Your task to perform on an android device: change the clock style Image 0: 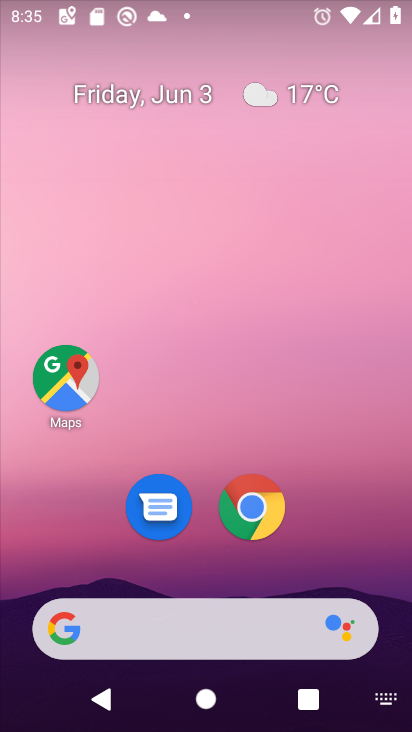
Step 0: press home button
Your task to perform on an android device: change the clock style Image 1: 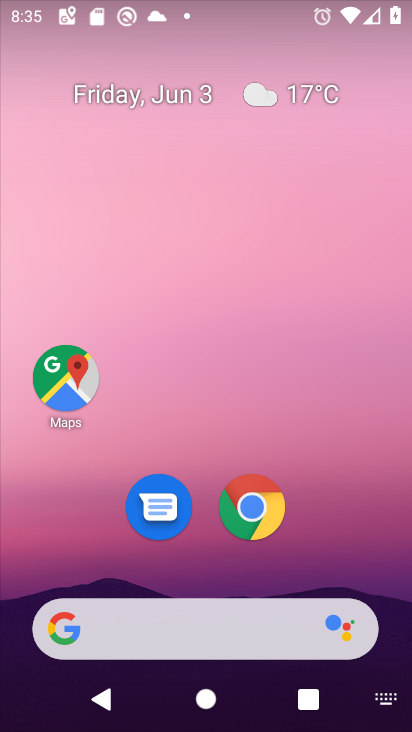
Step 1: drag from (321, 471) to (112, 9)
Your task to perform on an android device: change the clock style Image 2: 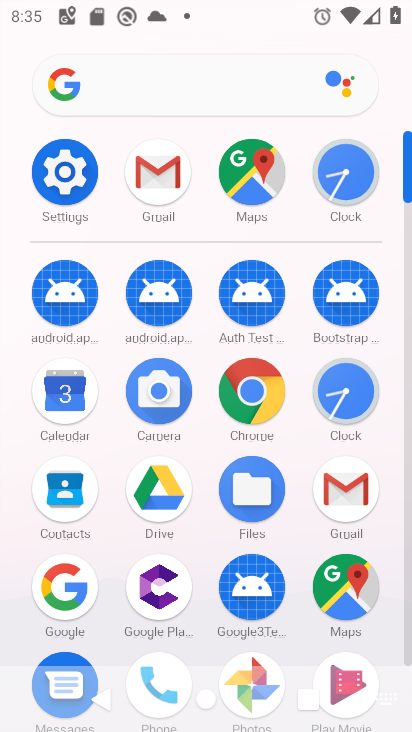
Step 2: click (349, 388)
Your task to perform on an android device: change the clock style Image 3: 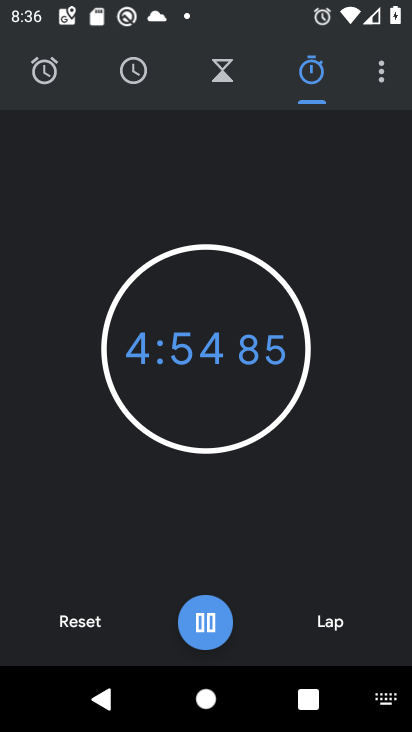
Step 3: click (379, 78)
Your task to perform on an android device: change the clock style Image 4: 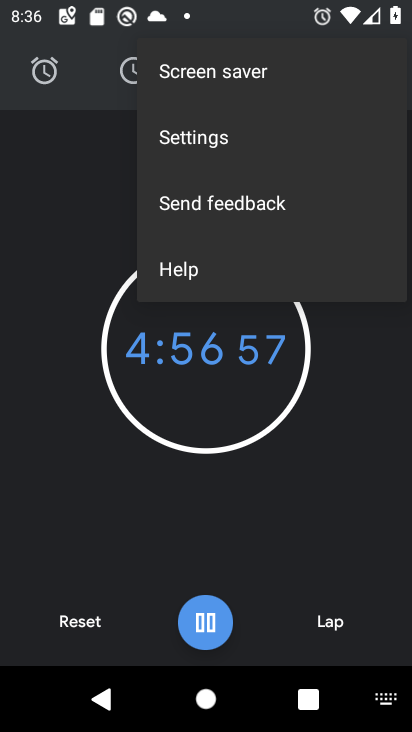
Step 4: click (200, 123)
Your task to perform on an android device: change the clock style Image 5: 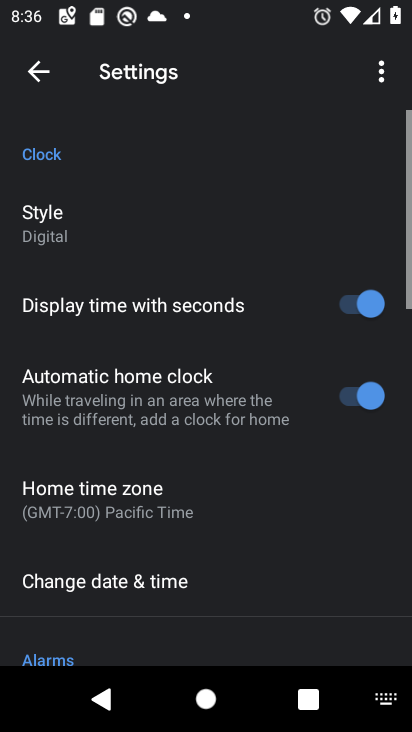
Step 5: click (107, 222)
Your task to perform on an android device: change the clock style Image 6: 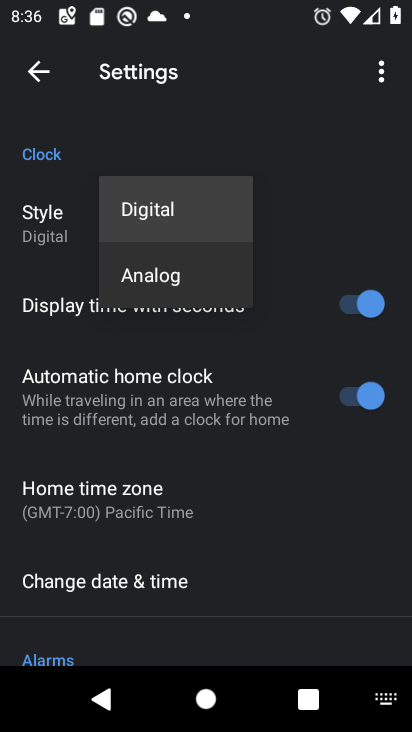
Step 6: click (176, 286)
Your task to perform on an android device: change the clock style Image 7: 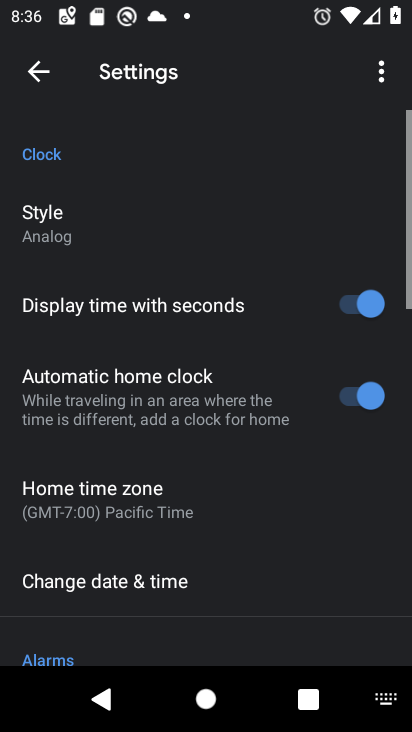
Step 7: task complete